Your task to perform on an android device: Open eBay Image 0: 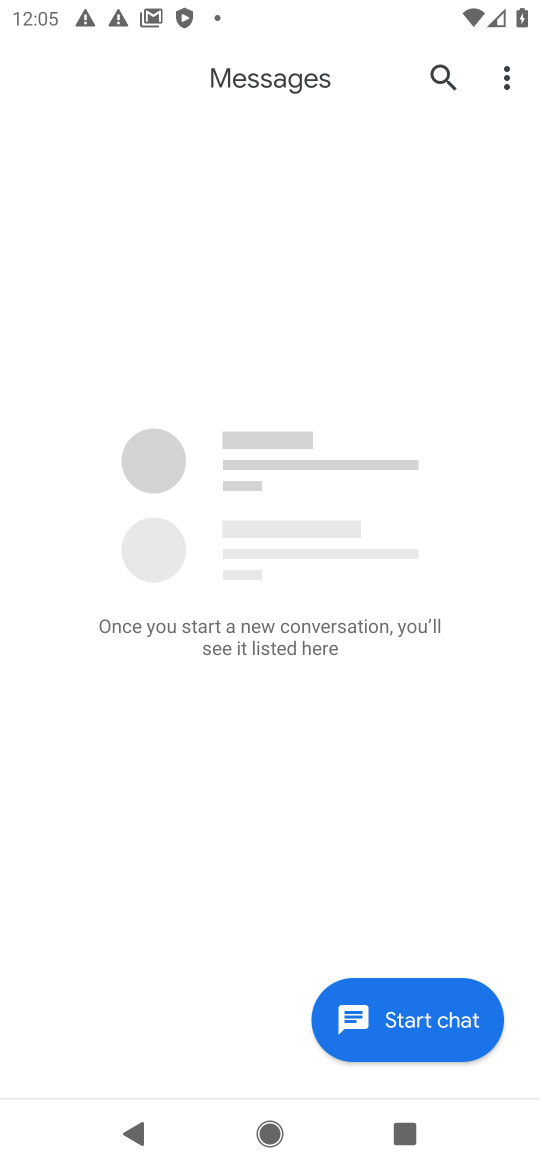
Step 0: press home button
Your task to perform on an android device: Open eBay Image 1: 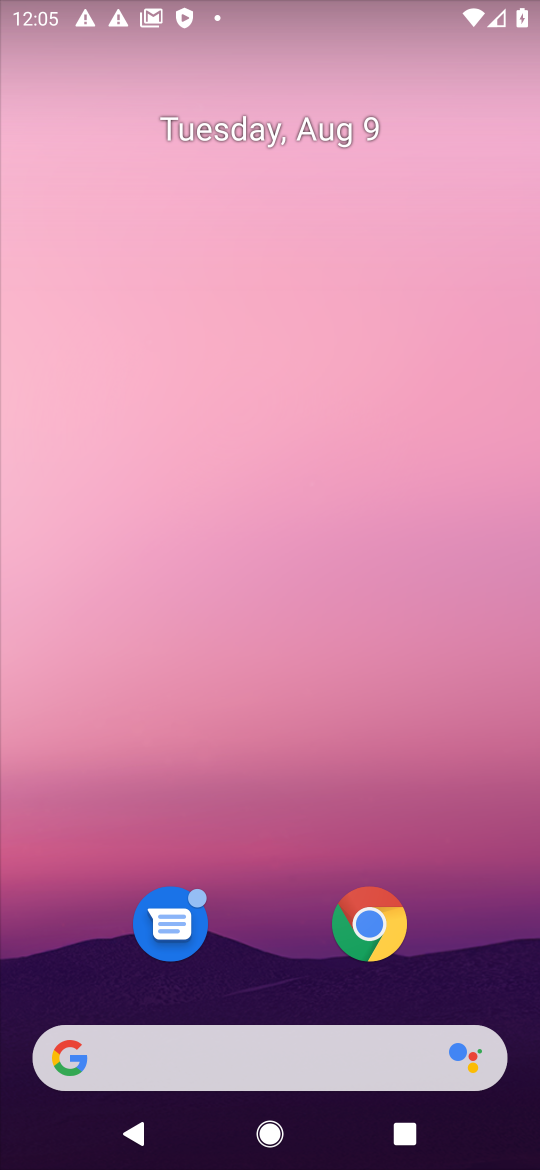
Step 1: click (371, 936)
Your task to perform on an android device: Open eBay Image 2: 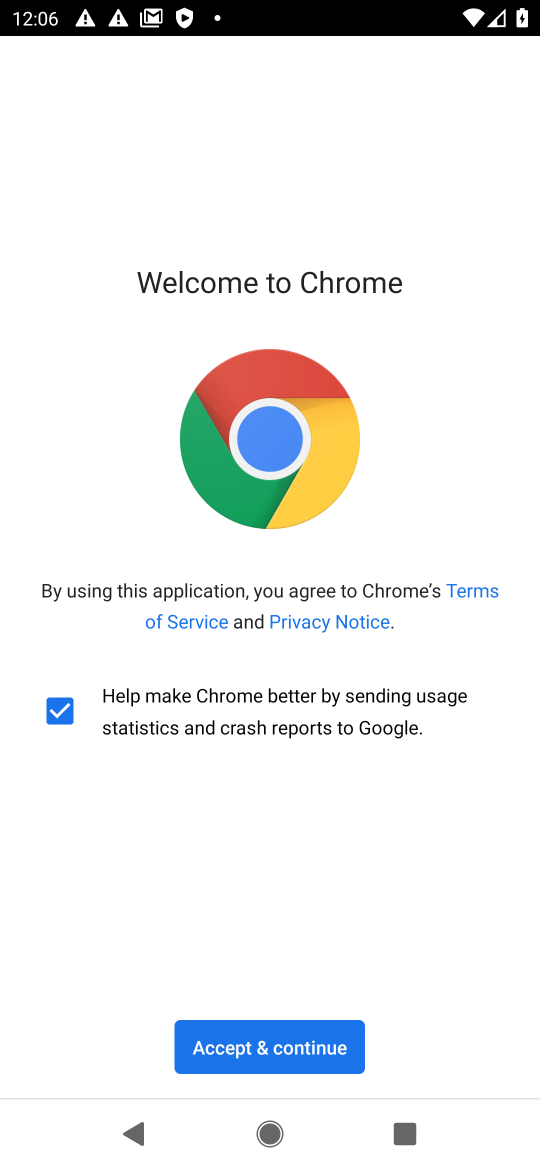
Step 2: click (226, 1068)
Your task to perform on an android device: Open eBay Image 3: 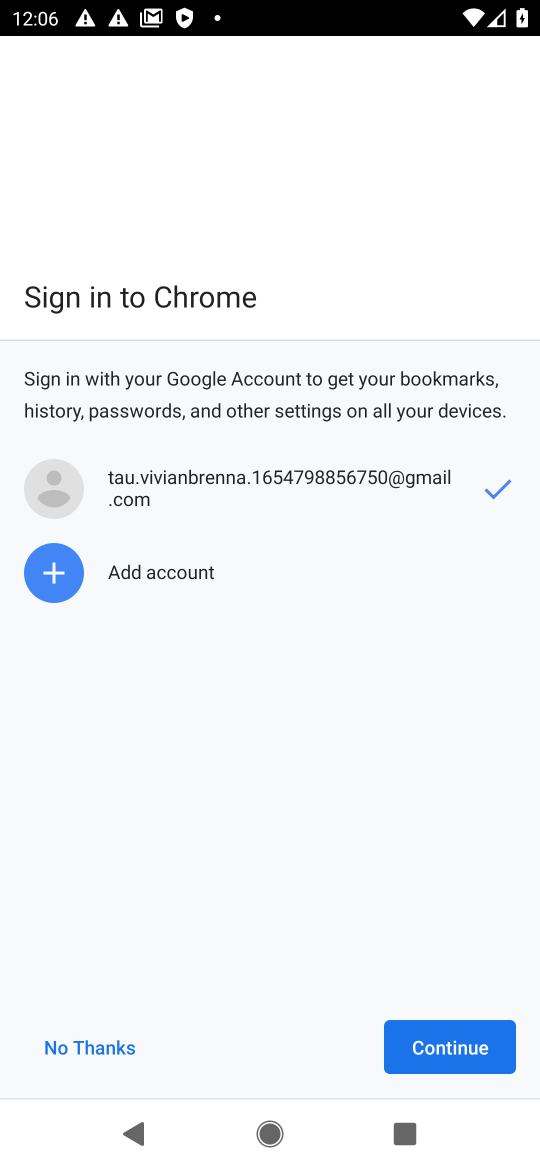
Step 3: click (403, 1045)
Your task to perform on an android device: Open eBay Image 4: 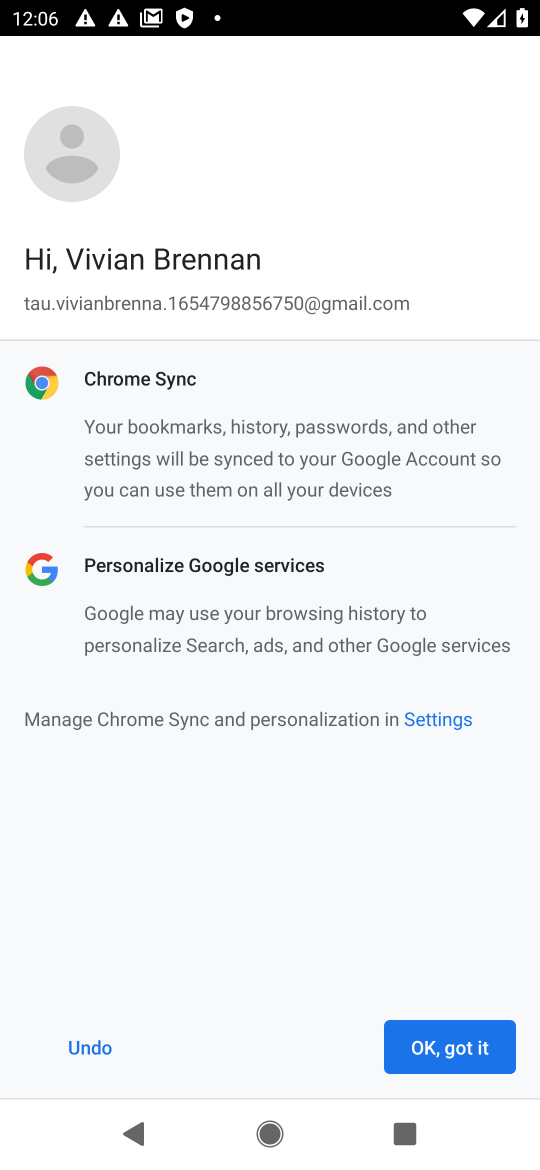
Step 4: click (412, 1045)
Your task to perform on an android device: Open eBay Image 5: 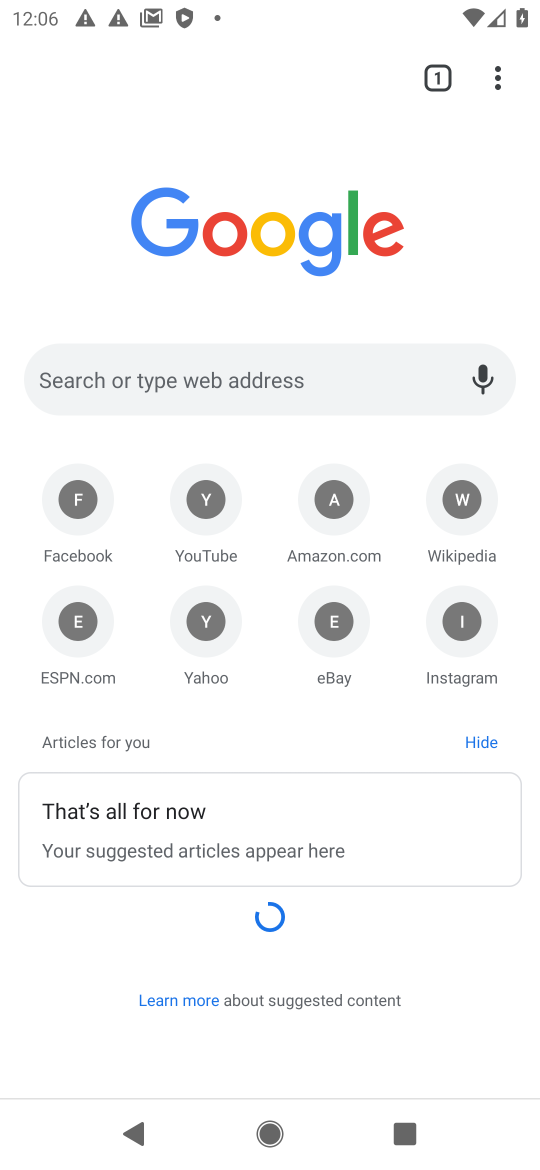
Step 5: click (360, 612)
Your task to perform on an android device: Open eBay Image 6: 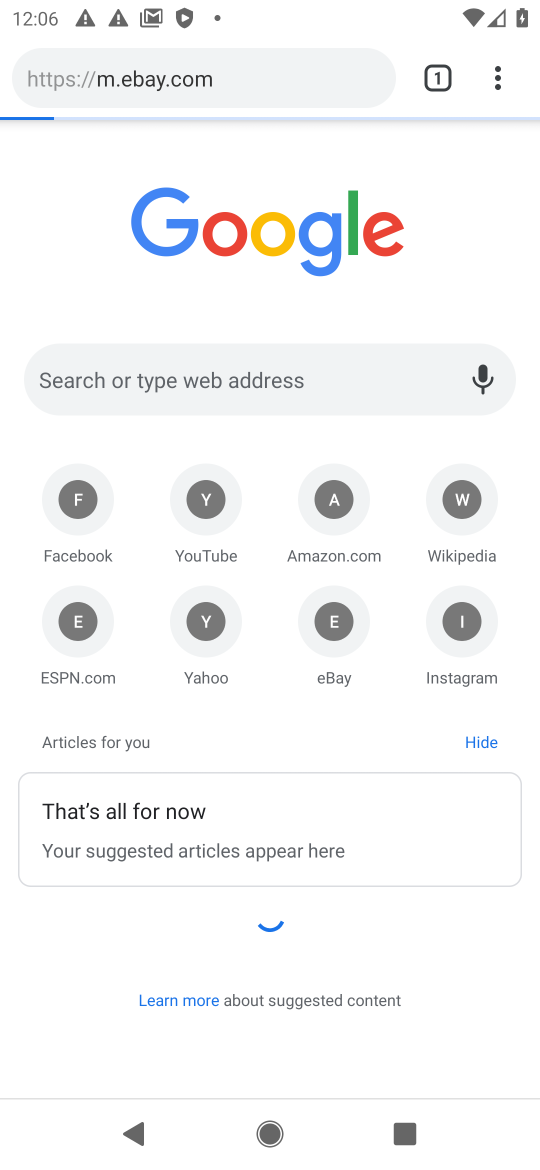
Step 6: task complete